Your task to perform on an android device: Is it going to rain tomorrow? Image 0: 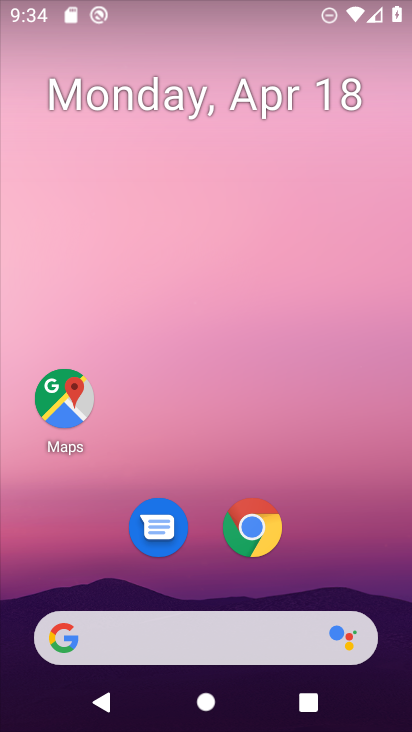
Step 0: drag from (328, 530) to (225, 55)
Your task to perform on an android device: Is it going to rain tomorrow? Image 1: 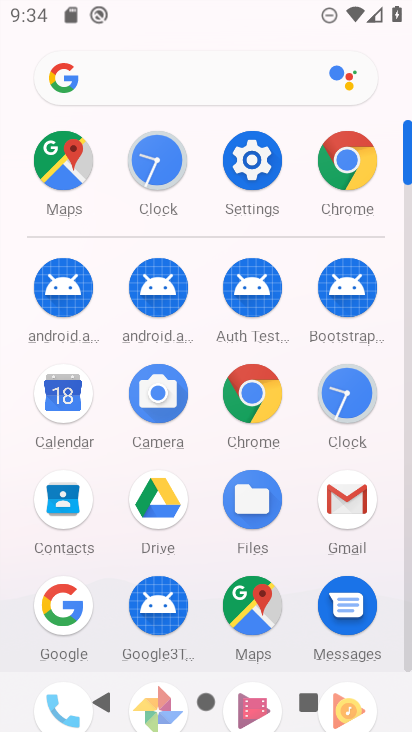
Step 1: click (199, 75)
Your task to perform on an android device: Is it going to rain tomorrow? Image 2: 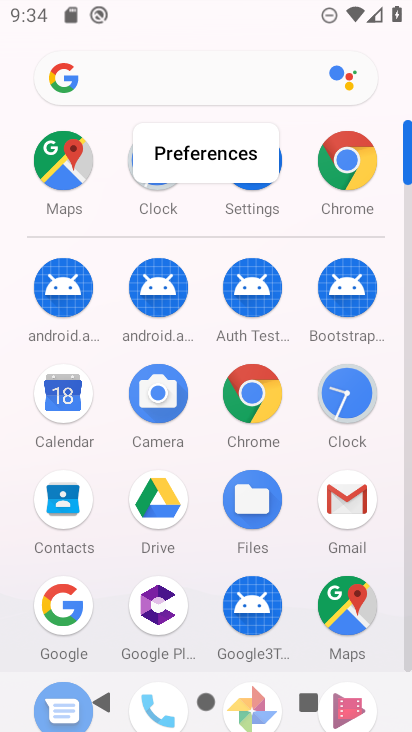
Step 2: click (243, 77)
Your task to perform on an android device: Is it going to rain tomorrow? Image 3: 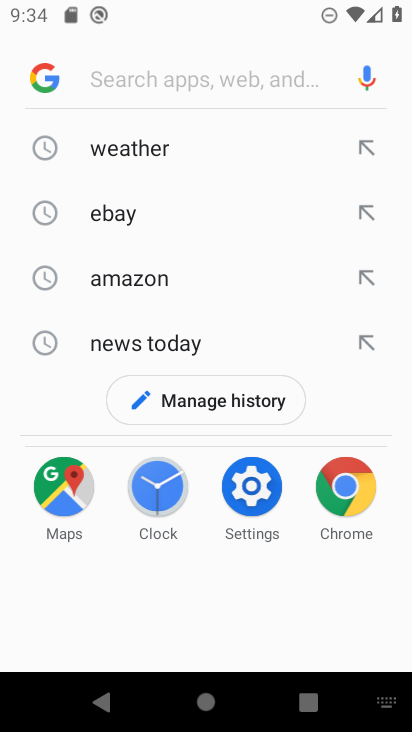
Step 3: click (173, 125)
Your task to perform on an android device: Is it going to rain tomorrow? Image 4: 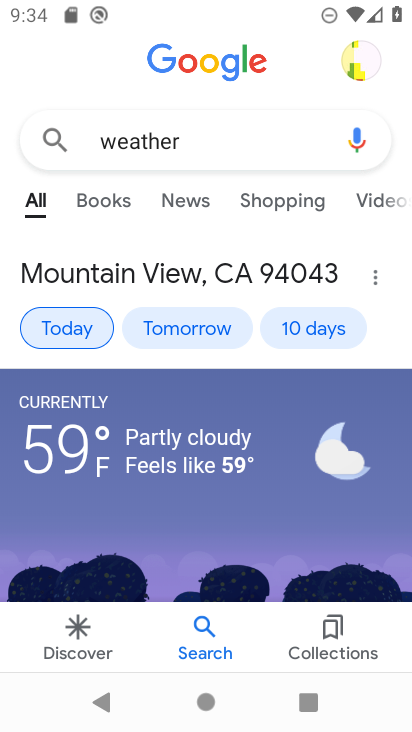
Step 4: click (150, 322)
Your task to perform on an android device: Is it going to rain tomorrow? Image 5: 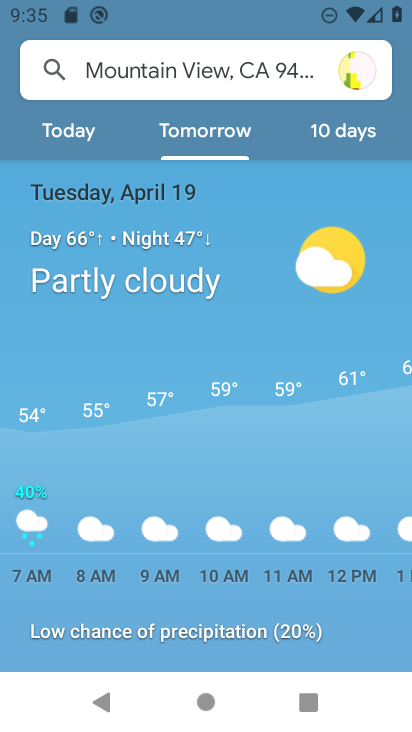
Step 5: task complete